Your task to perform on an android device: Open Youtube and go to "Your channel" Image 0: 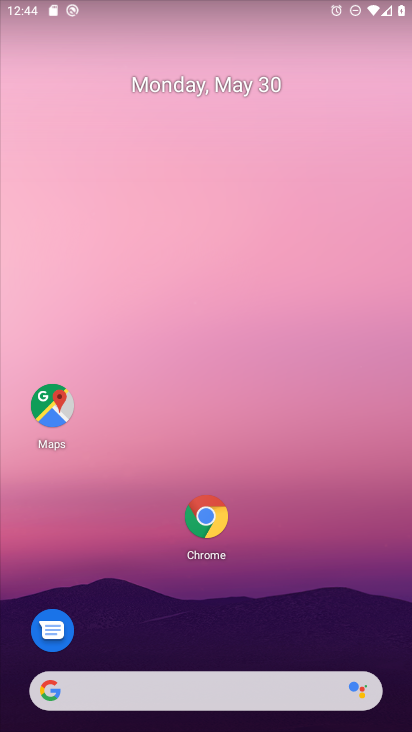
Step 0: press home button
Your task to perform on an android device: Open Youtube and go to "Your channel" Image 1: 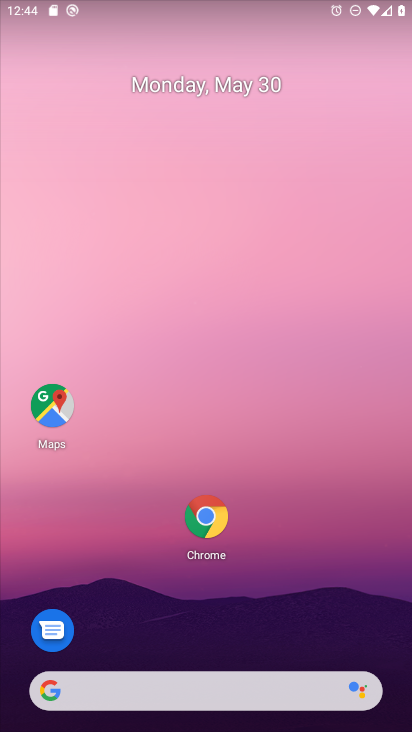
Step 1: drag from (171, 687) to (272, 77)
Your task to perform on an android device: Open Youtube and go to "Your channel" Image 2: 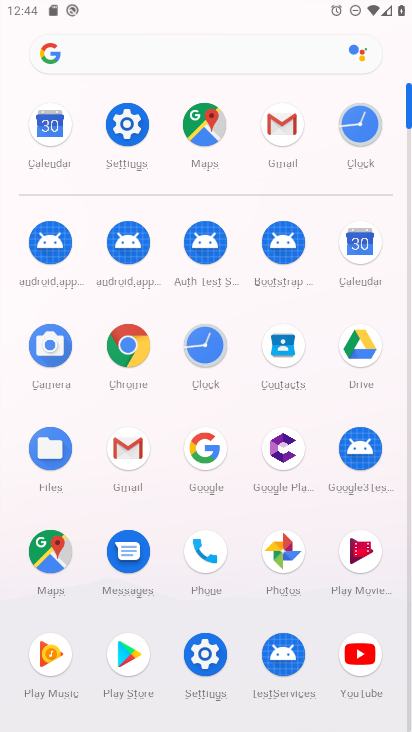
Step 2: click (358, 659)
Your task to perform on an android device: Open Youtube and go to "Your channel" Image 3: 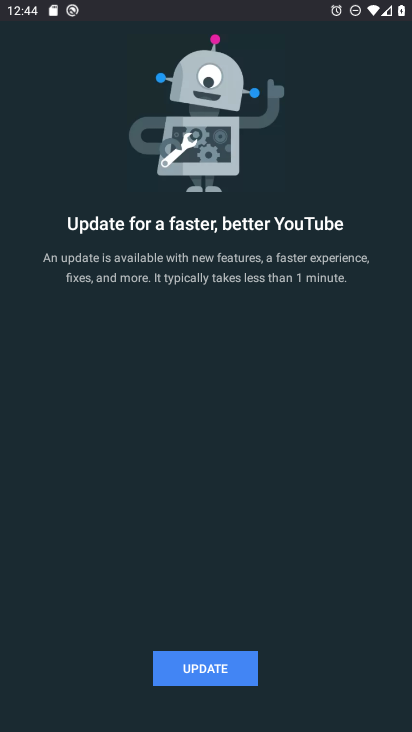
Step 3: drag from (225, 667) to (191, 667)
Your task to perform on an android device: Open Youtube and go to "Your channel" Image 4: 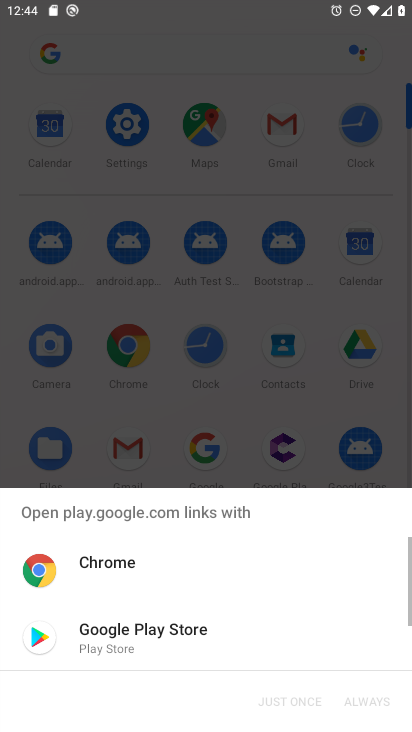
Step 4: click (135, 627)
Your task to perform on an android device: Open Youtube and go to "Your channel" Image 5: 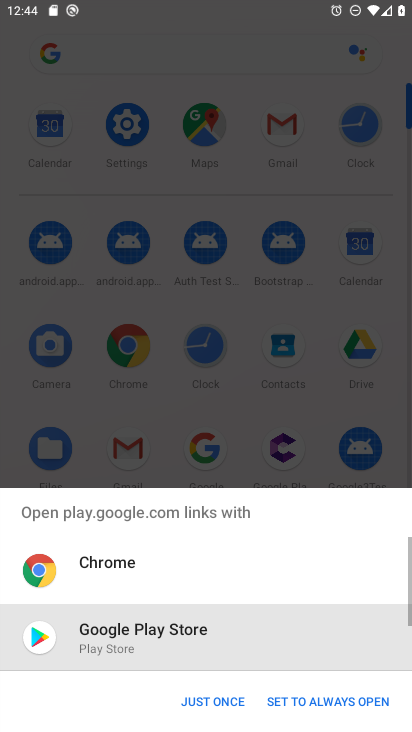
Step 5: click (210, 701)
Your task to perform on an android device: Open Youtube and go to "Your channel" Image 6: 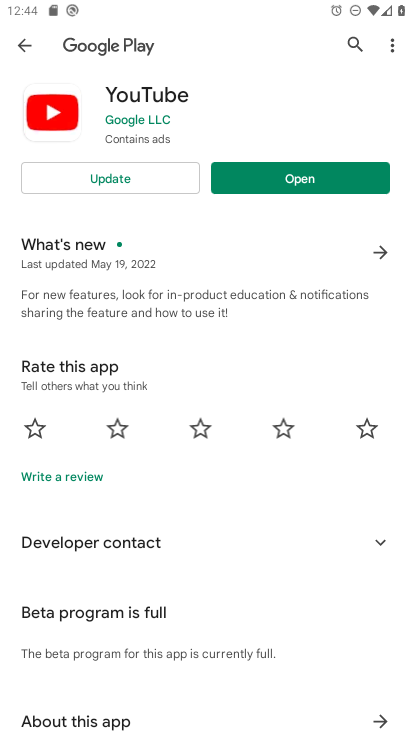
Step 6: click (136, 166)
Your task to perform on an android device: Open Youtube and go to "Your channel" Image 7: 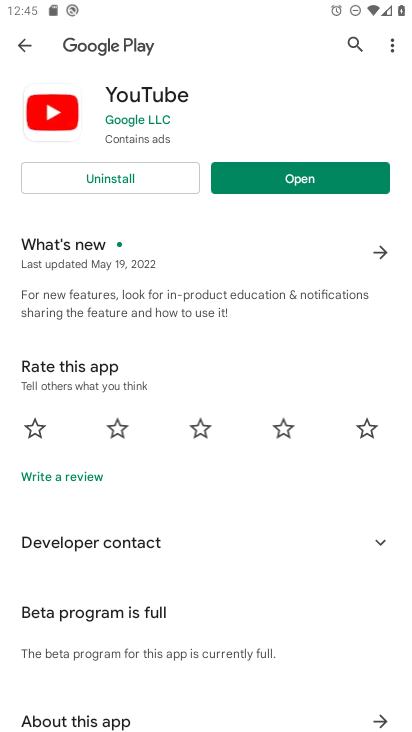
Step 7: click (321, 172)
Your task to perform on an android device: Open Youtube and go to "Your channel" Image 8: 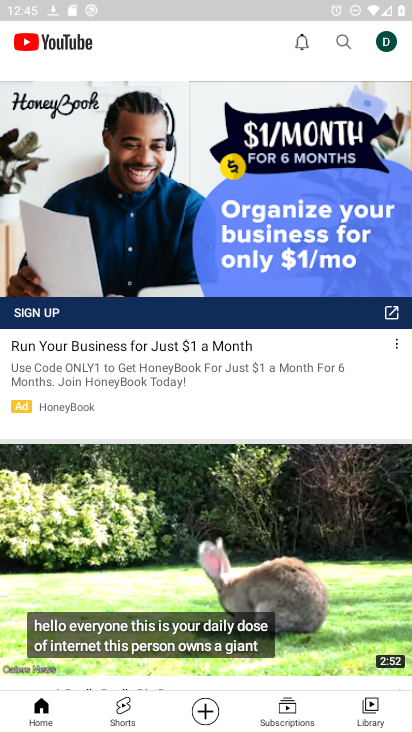
Step 8: click (384, 44)
Your task to perform on an android device: Open Youtube and go to "Your channel" Image 9: 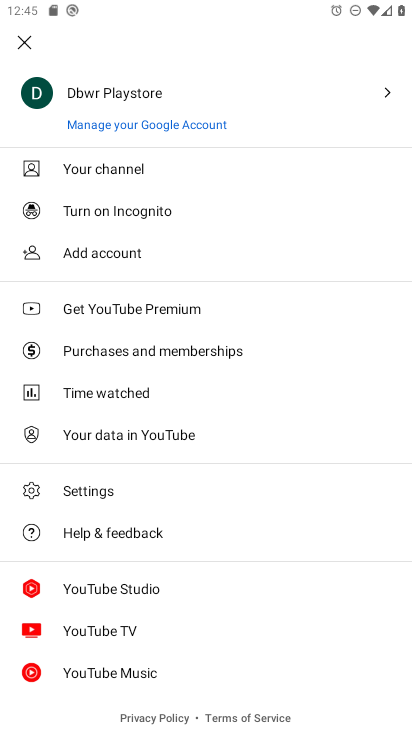
Step 9: click (84, 170)
Your task to perform on an android device: Open Youtube and go to "Your channel" Image 10: 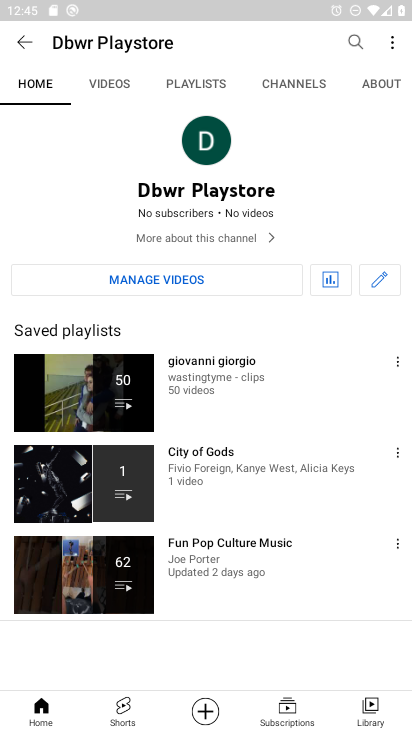
Step 10: task complete